Your task to perform on an android device: Go to wifi settings Image 0: 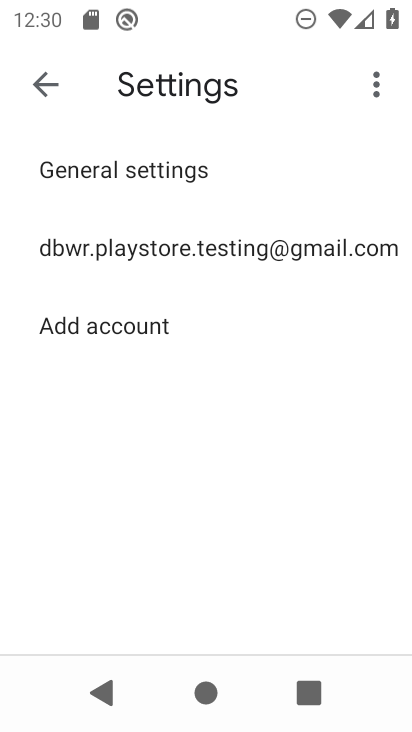
Step 0: press home button
Your task to perform on an android device: Go to wifi settings Image 1: 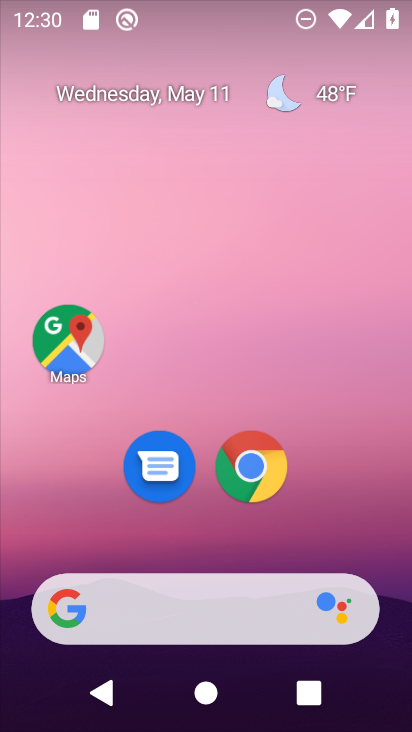
Step 1: drag from (220, 181) to (220, 26)
Your task to perform on an android device: Go to wifi settings Image 2: 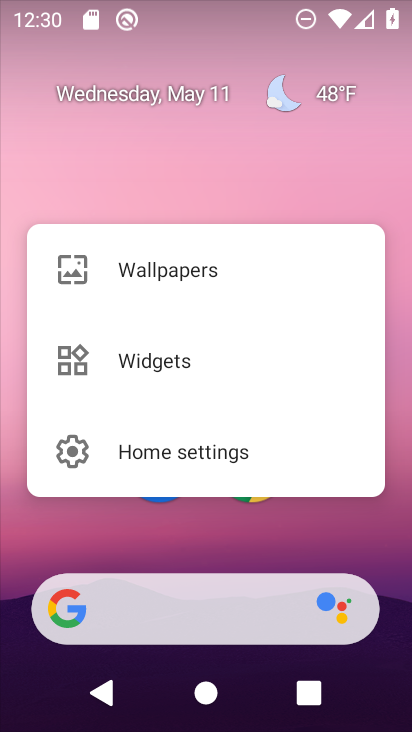
Step 2: click (231, 173)
Your task to perform on an android device: Go to wifi settings Image 3: 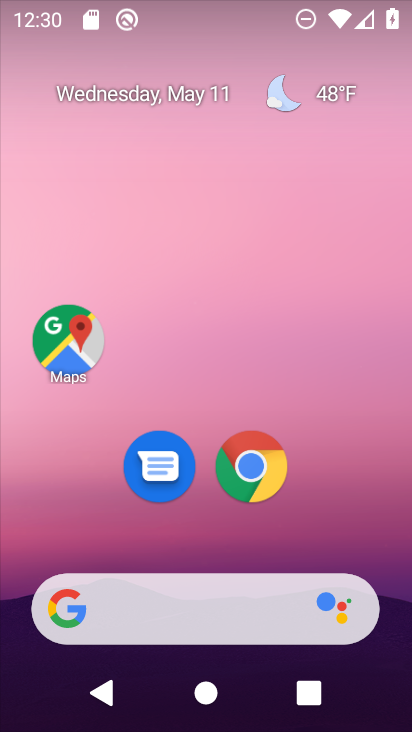
Step 3: drag from (209, 532) to (208, 144)
Your task to perform on an android device: Go to wifi settings Image 4: 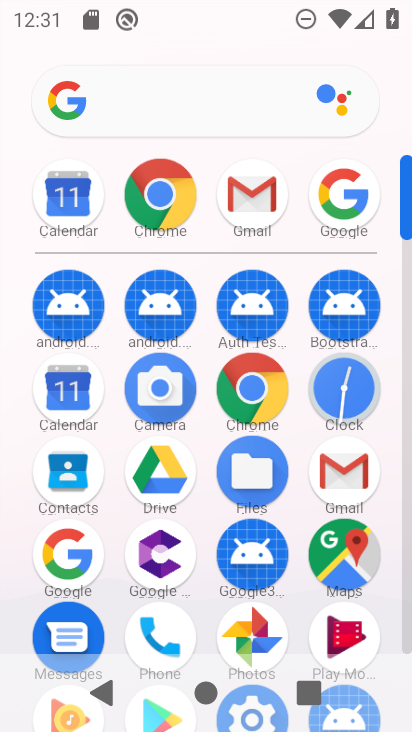
Step 4: drag from (166, 14) to (176, 595)
Your task to perform on an android device: Go to wifi settings Image 5: 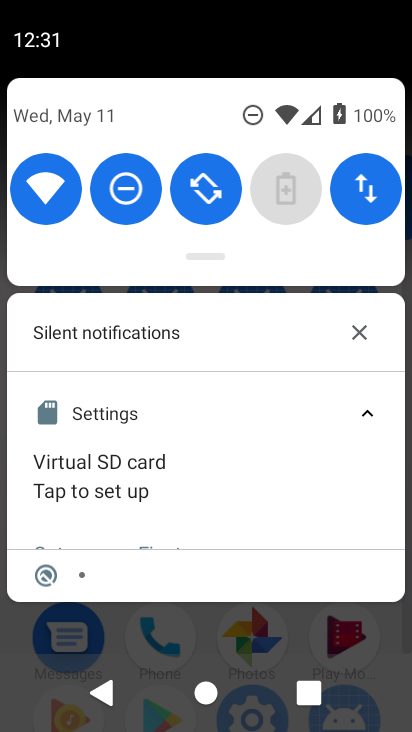
Step 5: drag from (213, 636) to (239, 354)
Your task to perform on an android device: Go to wifi settings Image 6: 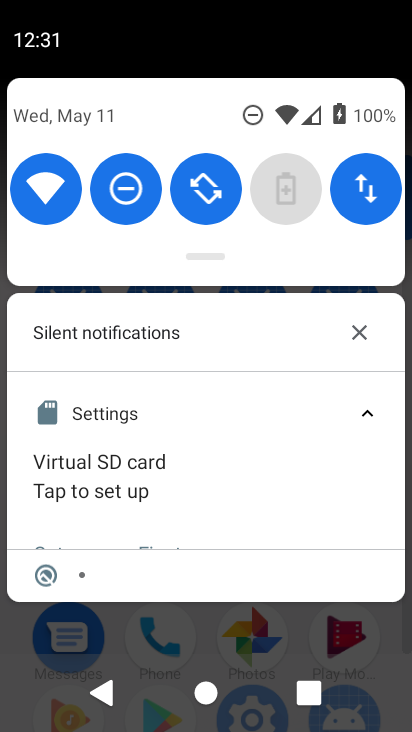
Step 6: drag from (268, 650) to (297, 111)
Your task to perform on an android device: Go to wifi settings Image 7: 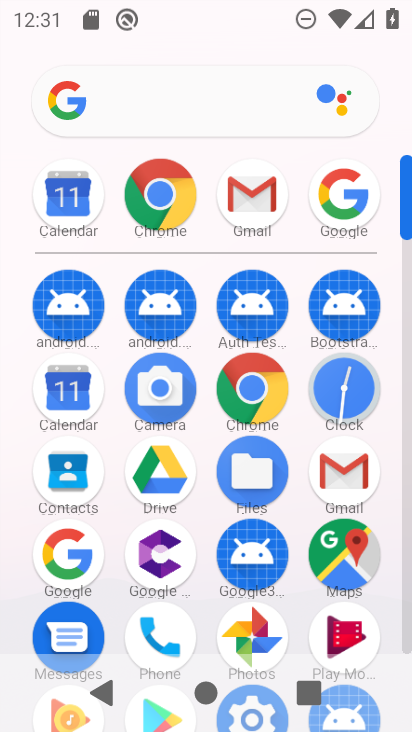
Step 7: drag from (209, 511) to (233, 104)
Your task to perform on an android device: Go to wifi settings Image 8: 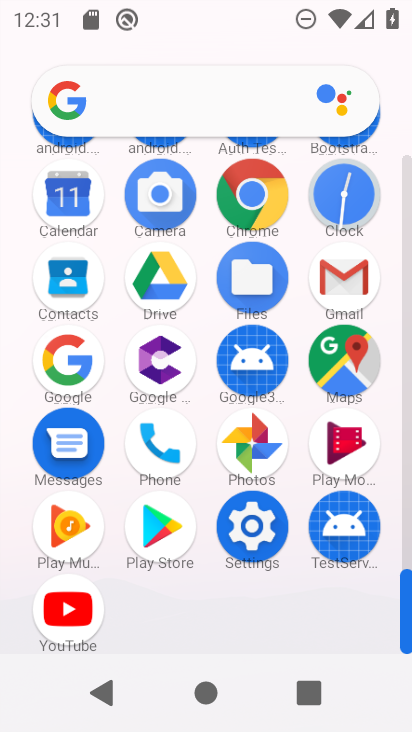
Step 8: click (248, 514)
Your task to perform on an android device: Go to wifi settings Image 9: 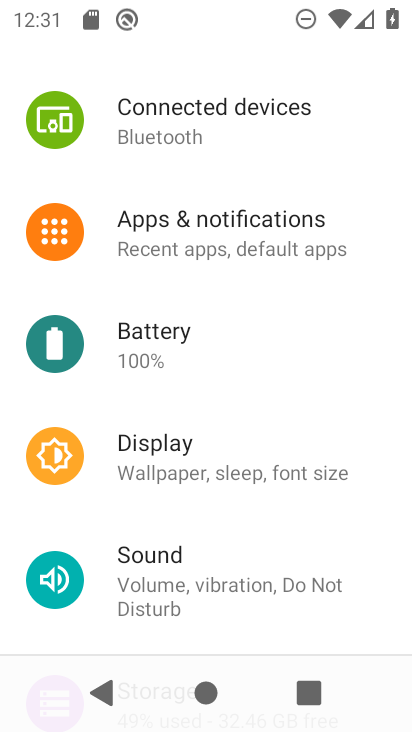
Step 9: drag from (187, 122) to (208, 587)
Your task to perform on an android device: Go to wifi settings Image 10: 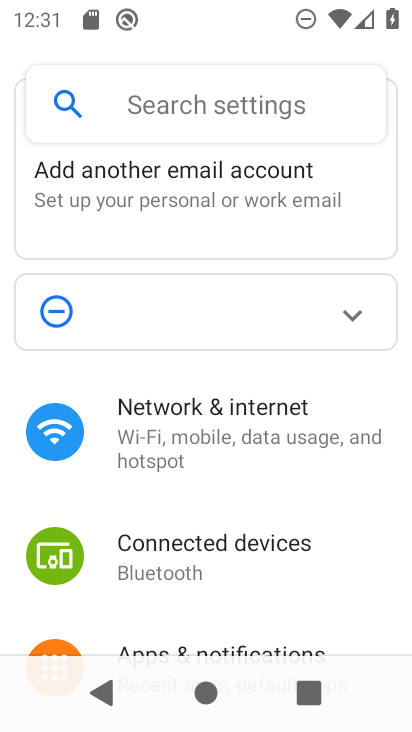
Step 10: click (102, 423)
Your task to perform on an android device: Go to wifi settings Image 11: 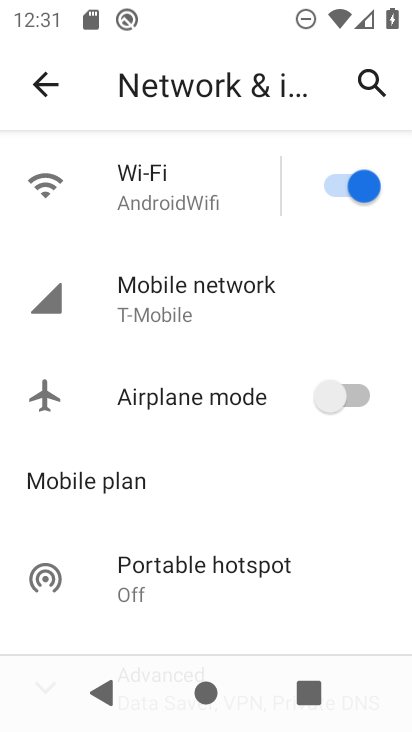
Step 11: click (236, 190)
Your task to perform on an android device: Go to wifi settings Image 12: 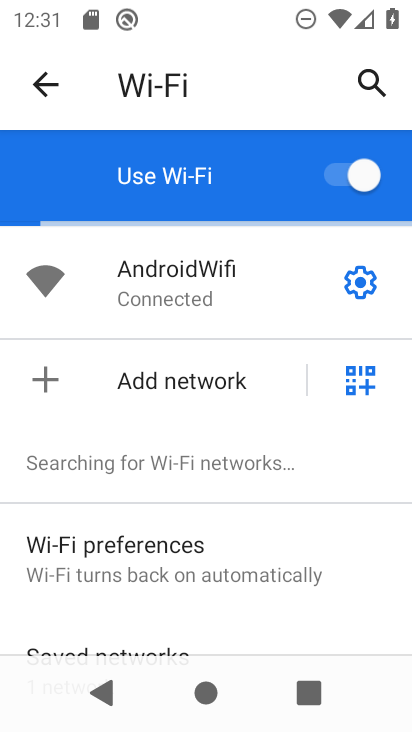
Step 12: task complete